Your task to perform on an android device: Go to Google maps Image 0: 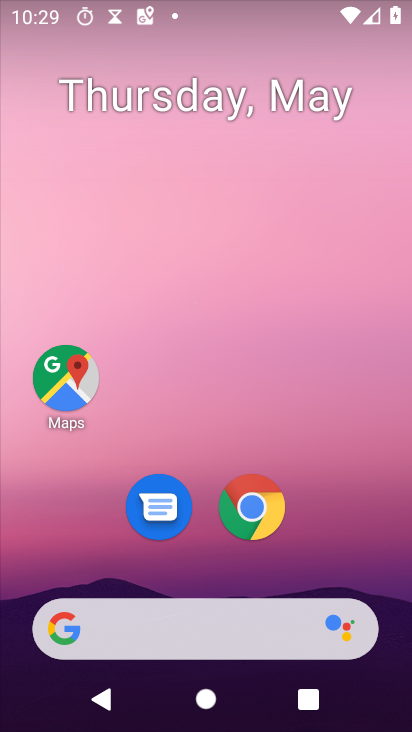
Step 0: click (60, 395)
Your task to perform on an android device: Go to Google maps Image 1: 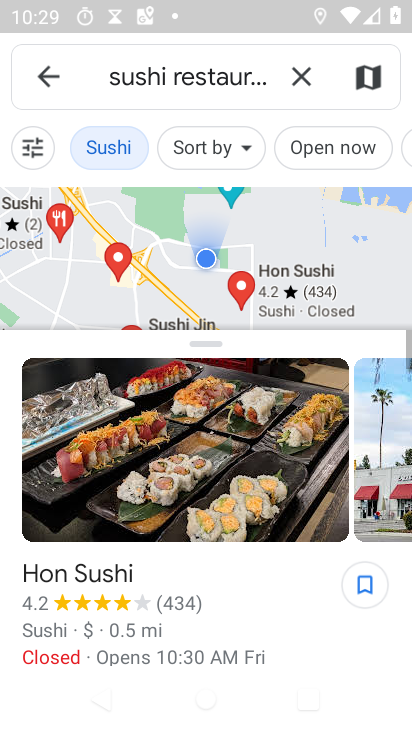
Step 1: task complete